Your task to perform on an android device: Search for pizza restaurants on Maps Image 0: 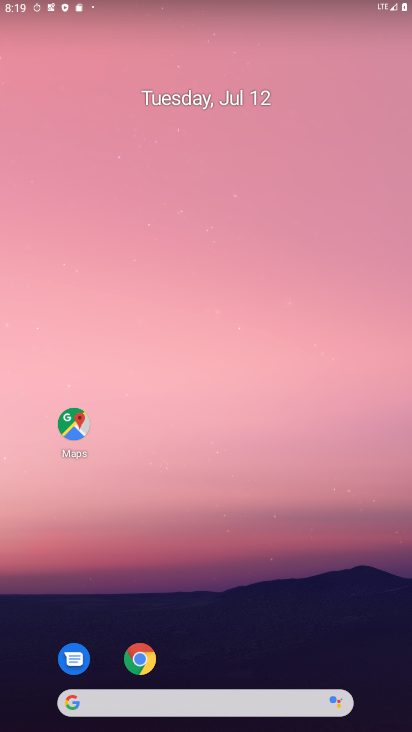
Step 0: drag from (387, 694) to (244, 67)
Your task to perform on an android device: Search for pizza restaurants on Maps Image 1: 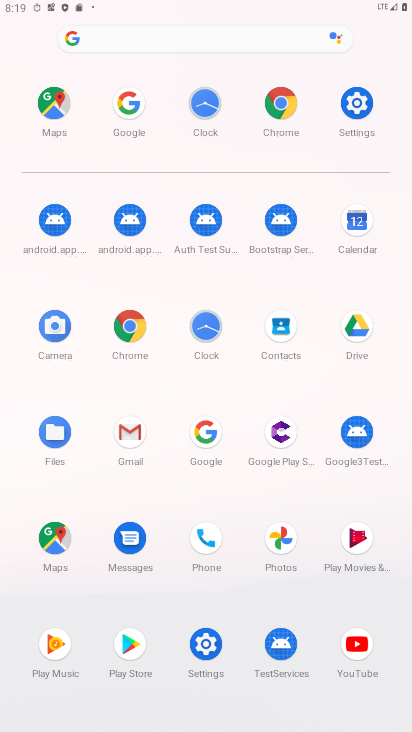
Step 1: click (62, 528)
Your task to perform on an android device: Search for pizza restaurants on Maps Image 2: 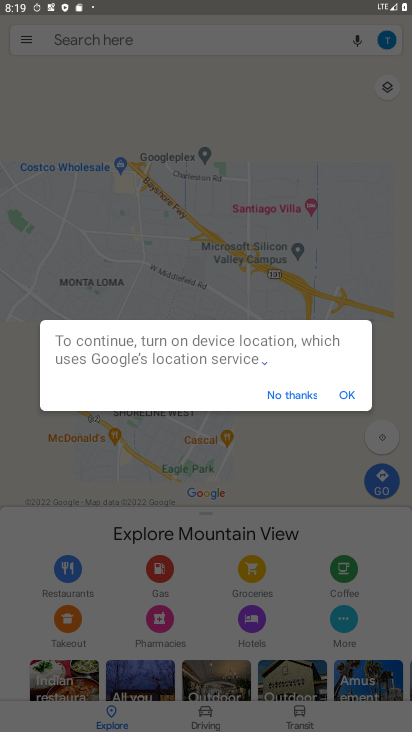
Step 2: click (344, 395)
Your task to perform on an android device: Search for pizza restaurants on Maps Image 3: 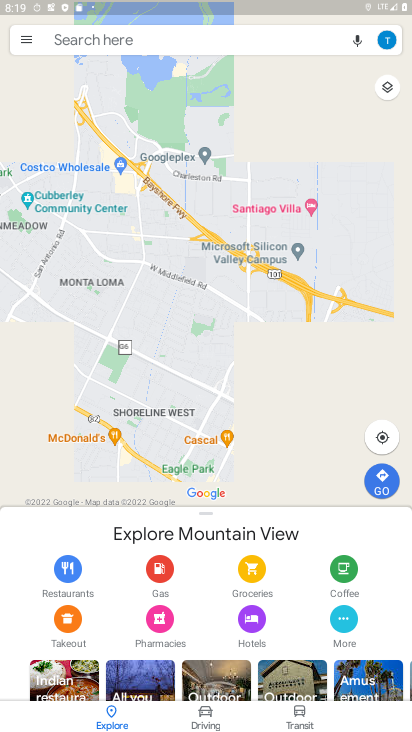
Step 3: click (126, 38)
Your task to perform on an android device: Search for pizza restaurants on Maps Image 4: 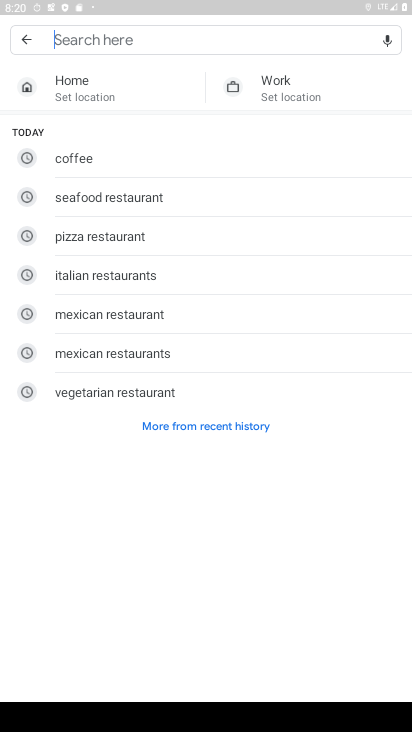
Step 4: click (113, 235)
Your task to perform on an android device: Search for pizza restaurants on Maps Image 5: 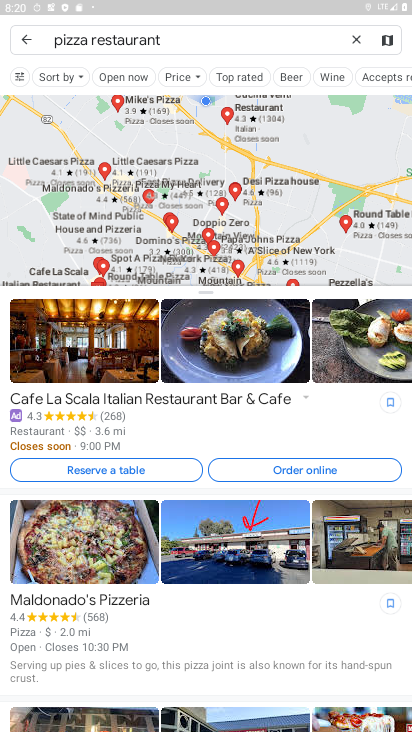
Step 5: task complete